Your task to perform on an android device: see sites visited before in the chrome app Image 0: 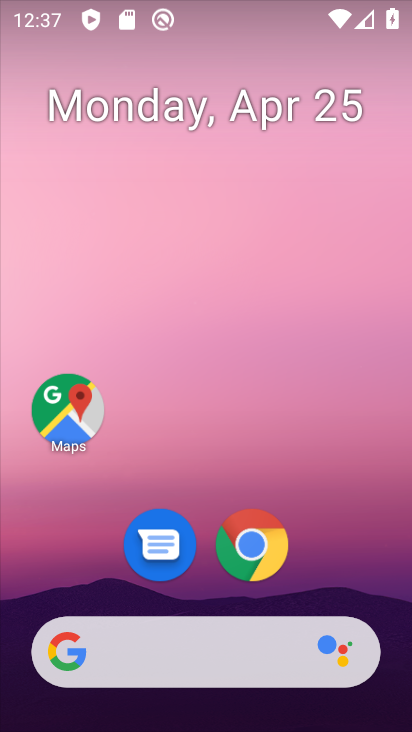
Step 0: click (250, 526)
Your task to perform on an android device: see sites visited before in the chrome app Image 1: 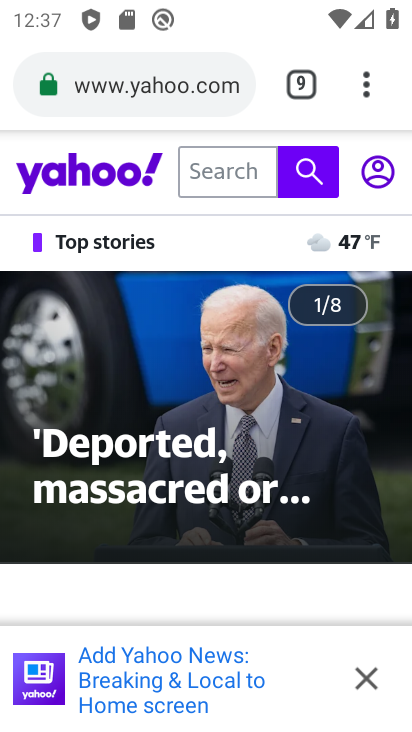
Step 1: task complete